Your task to perform on an android device: change the clock display to show seconds Image 0: 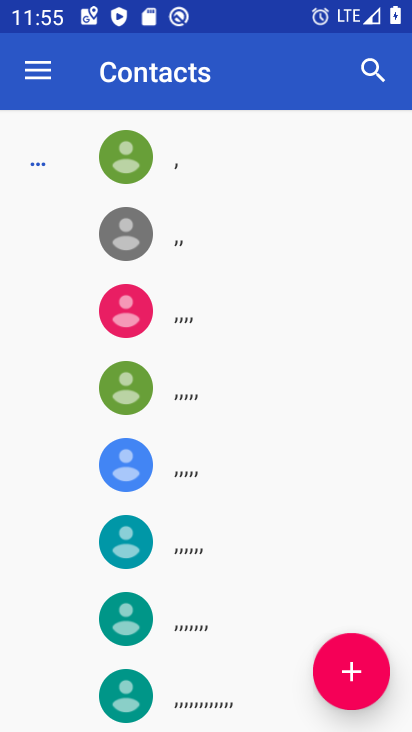
Step 0: press home button
Your task to perform on an android device: change the clock display to show seconds Image 1: 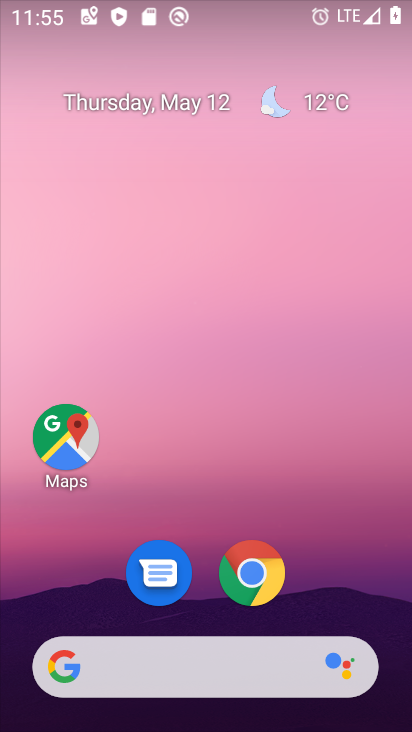
Step 1: drag from (211, 721) to (269, 20)
Your task to perform on an android device: change the clock display to show seconds Image 2: 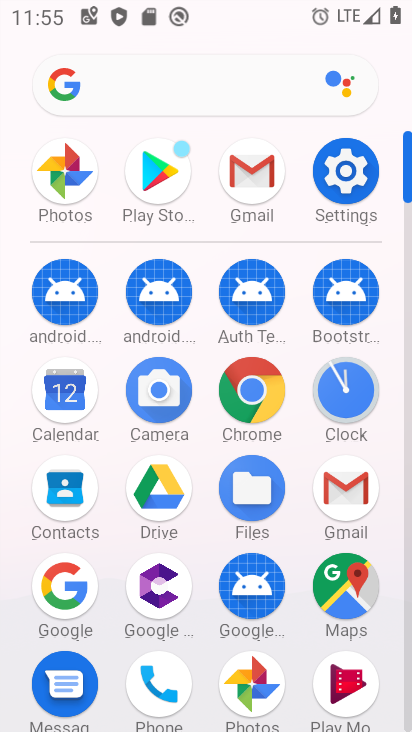
Step 2: click (355, 381)
Your task to perform on an android device: change the clock display to show seconds Image 3: 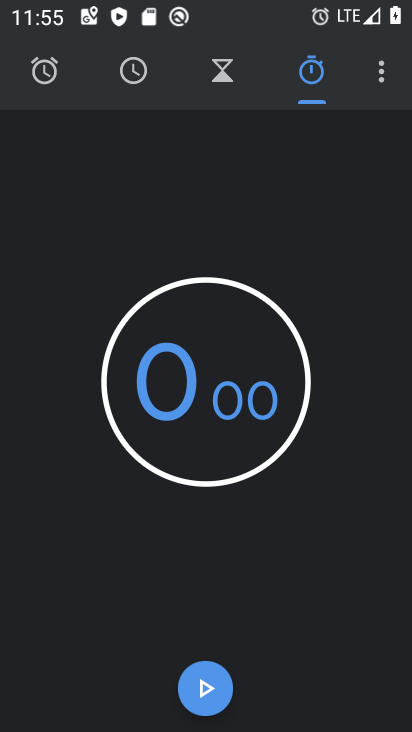
Step 3: click (381, 68)
Your task to perform on an android device: change the clock display to show seconds Image 4: 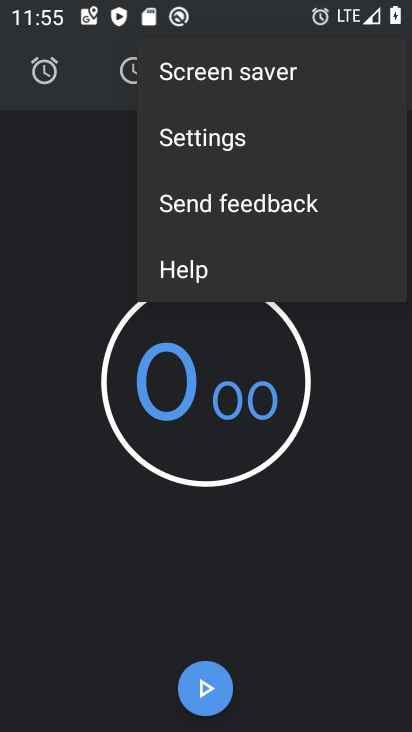
Step 4: click (247, 138)
Your task to perform on an android device: change the clock display to show seconds Image 5: 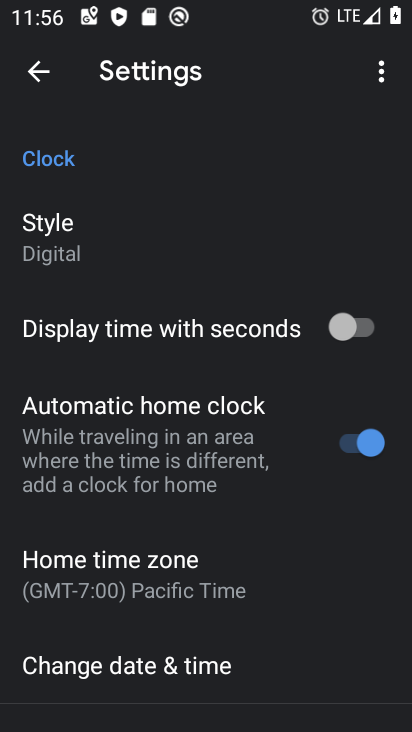
Step 5: click (361, 319)
Your task to perform on an android device: change the clock display to show seconds Image 6: 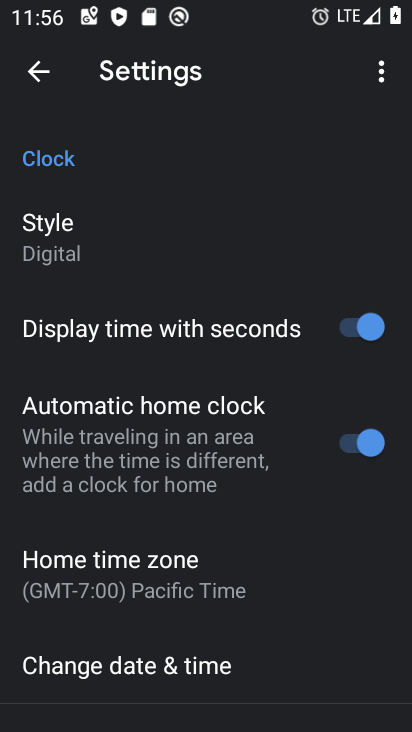
Step 6: task complete